Your task to perform on an android device: open the mobile data screen to see how much data has been used Image 0: 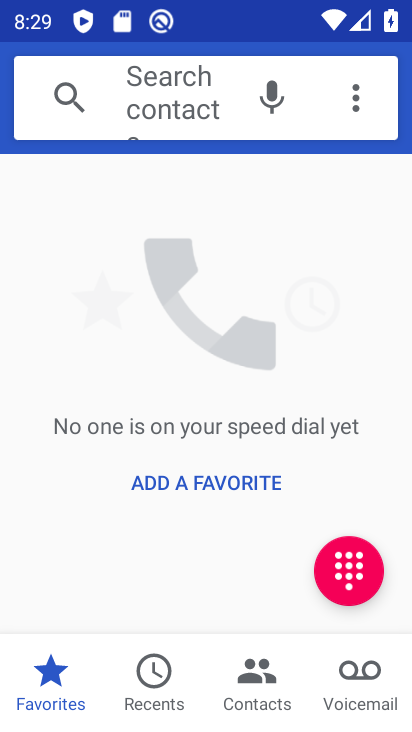
Step 0: press home button
Your task to perform on an android device: open the mobile data screen to see how much data has been used Image 1: 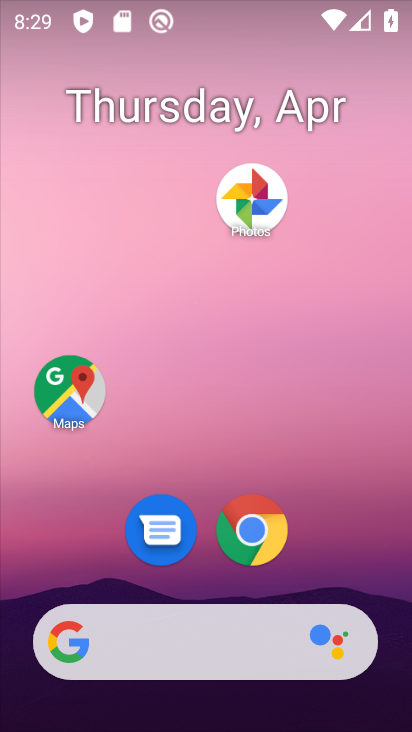
Step 1: drag from (325, 467) to (323, 175)
Your task to perform on an android device: open the mobile data screen to see how much data has been used Image 2: 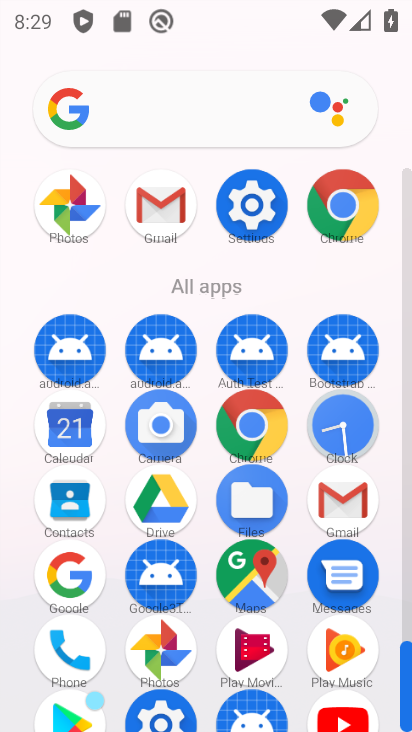
Step 2: click (253, 187)
Your task to perform on an android device: open the mobile data screen to see how much data has been used Image 3: 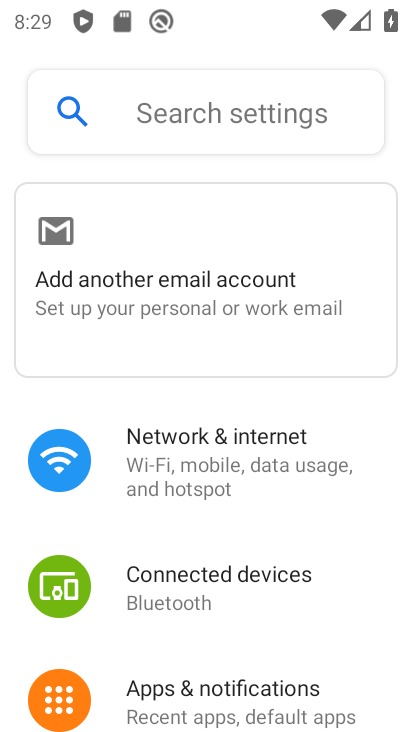
Step 3: click (219, 430)
Your task to perform on an android device: open the mobile data screen to see how much data has been used Image 4: 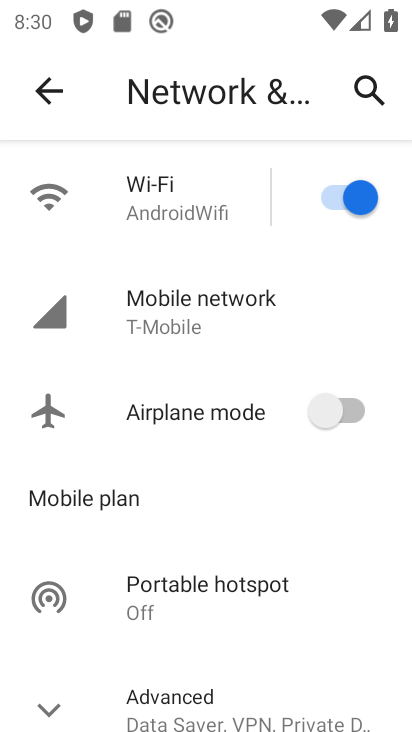
Step 4: click (184, 296)
Your task to perform on an android device: open the mobile data screen to see how much data has been used Image 5: 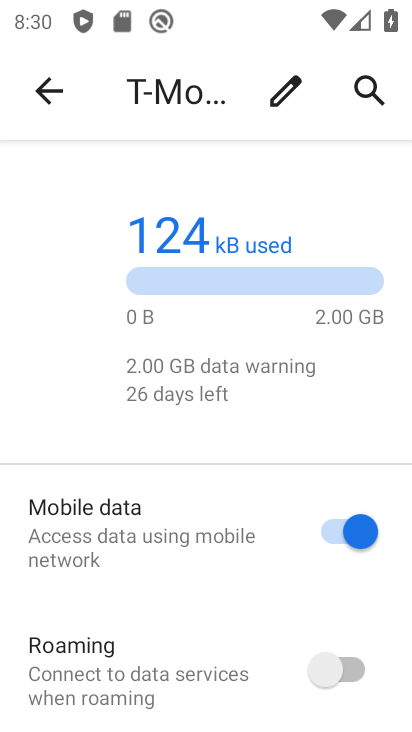
Step 5: task complete